Your task to perform on an android device: Add amazon basics triple a to the cart on amazon.com, then select checkout. Image 0: 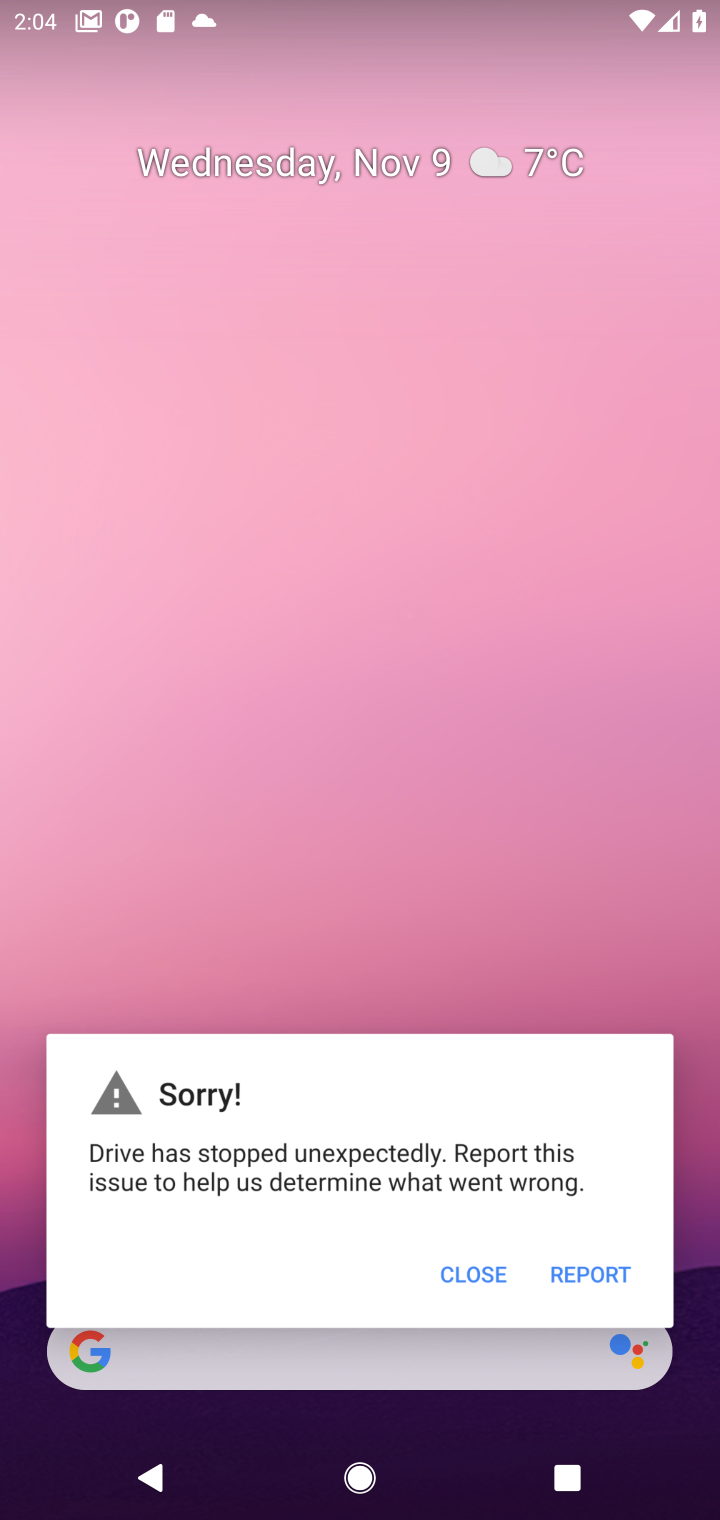
Step 0: press home button
Your task to perform on an android device: Add amazon basics triple a to the cart on amazon.com, then select checkout. Image 1: 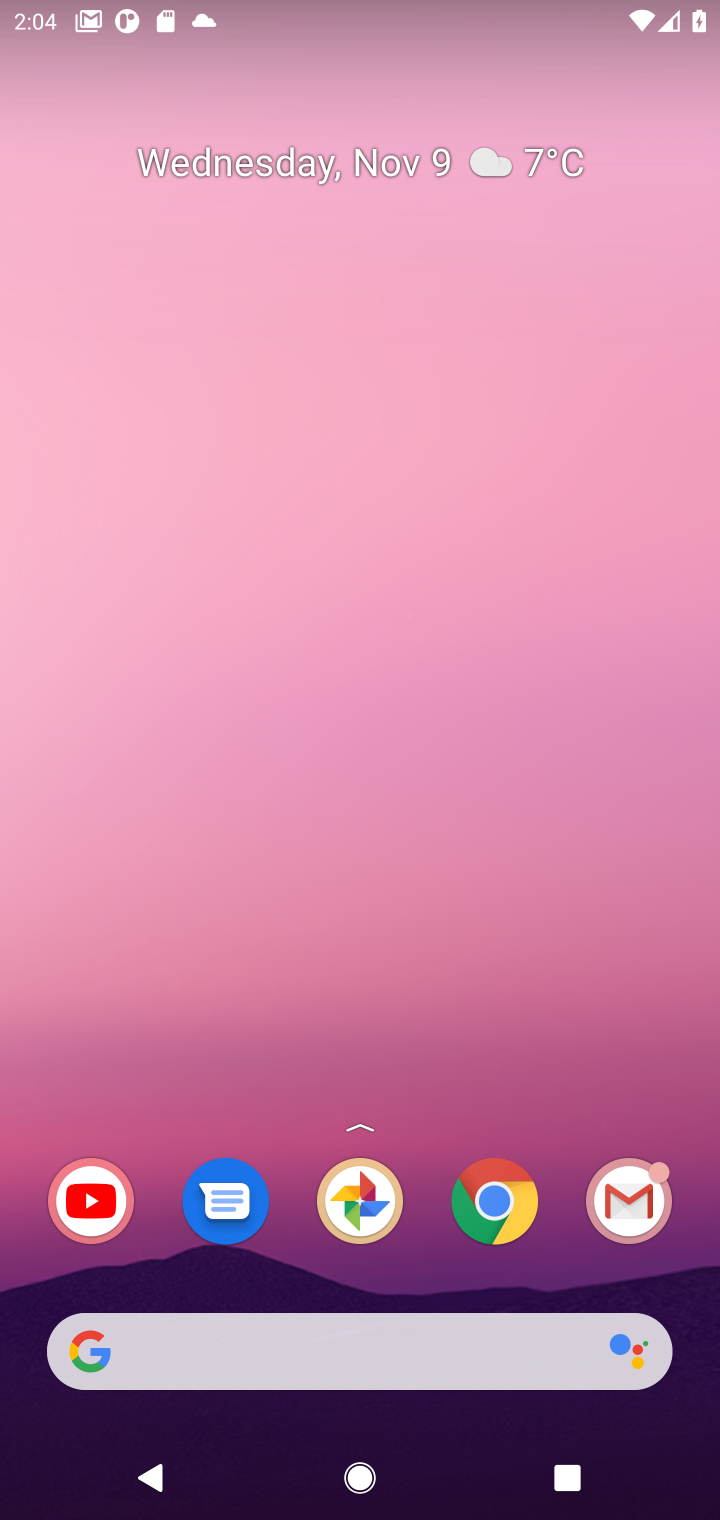
Step 1: click (358, 1388)
Your task to perform on an android device: Add amazon basics triple a to the cart on amazon.com, then select checkout. Image 2: 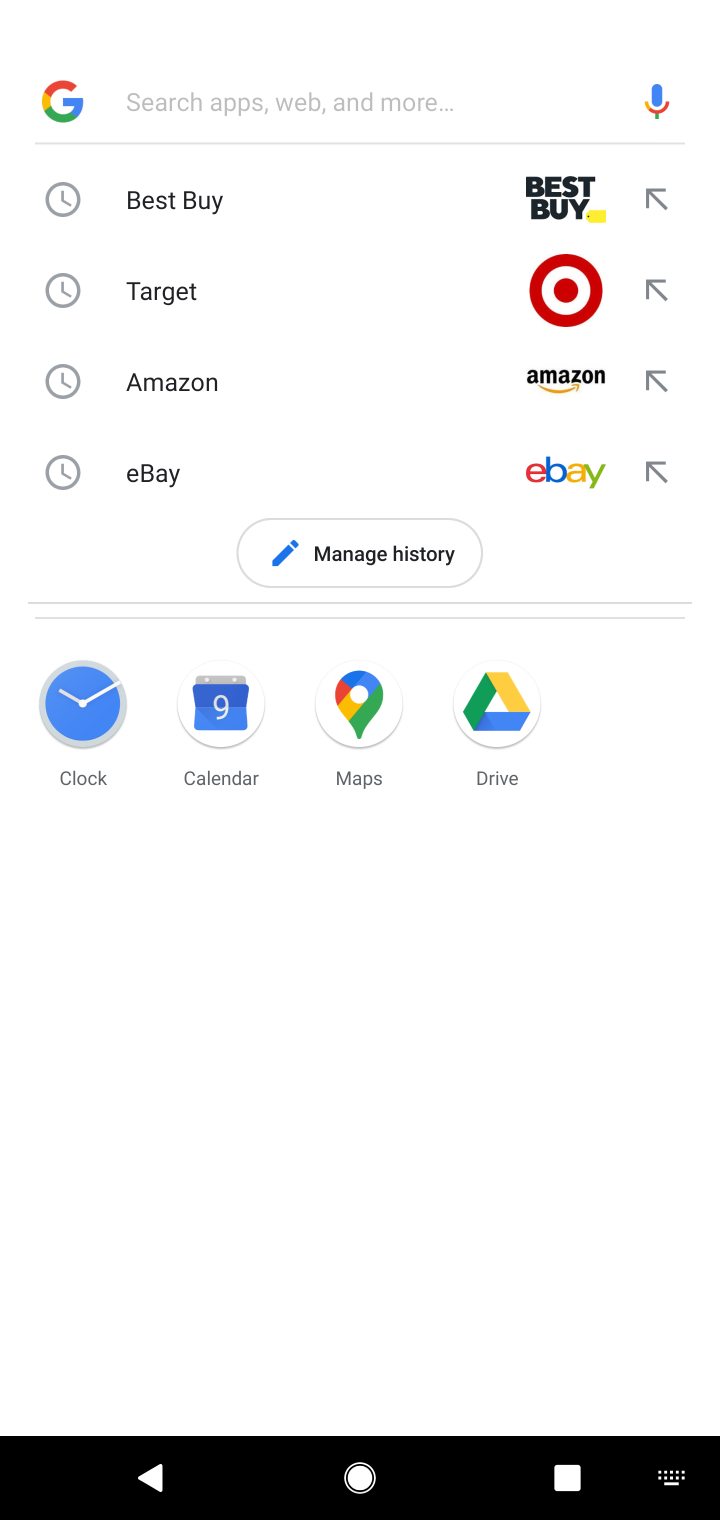
Step 2: click (338, 383)
Your task to perform on an android device: Add amazon basics triple a to the cart on amazon.com, then select checkout. Image 3: 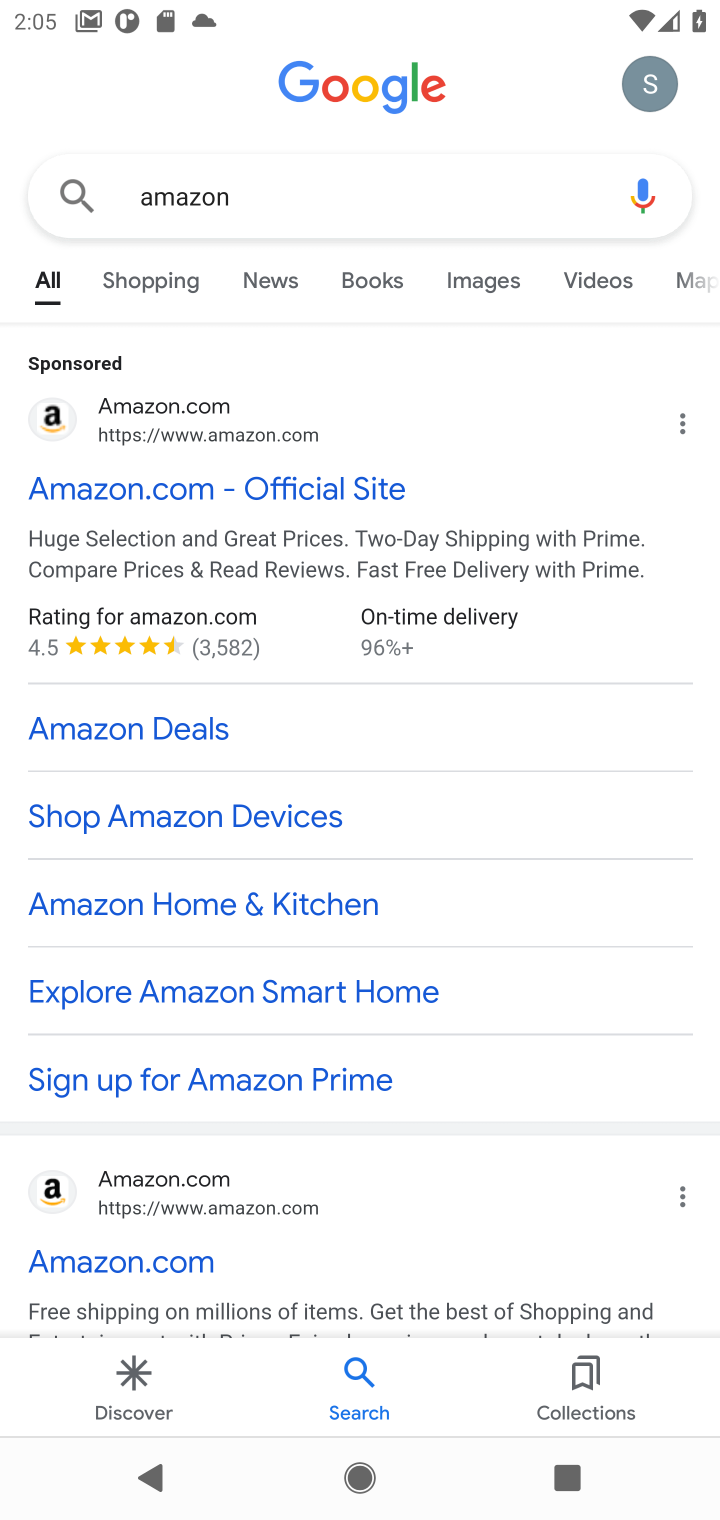
Step 3: click (132, 404)
Your task to perform on an android device: Add amazon basics triple a to the cart on amazon.com, then select checkout. Image 4: 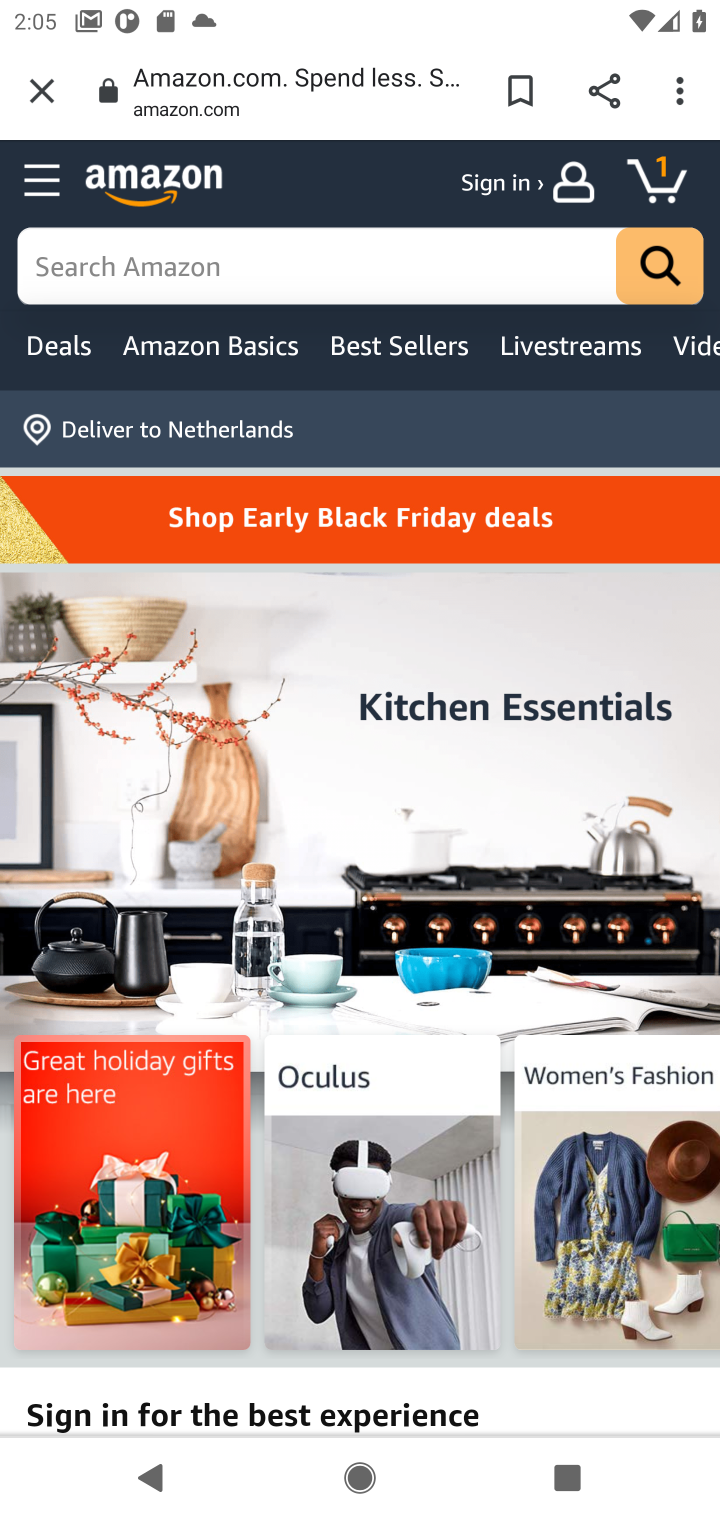
Step 4: click (245, 246)
Your task to perform on an android device: Add amazon basics triple a to the cart on amazon.com, then select checkout. Image 5: 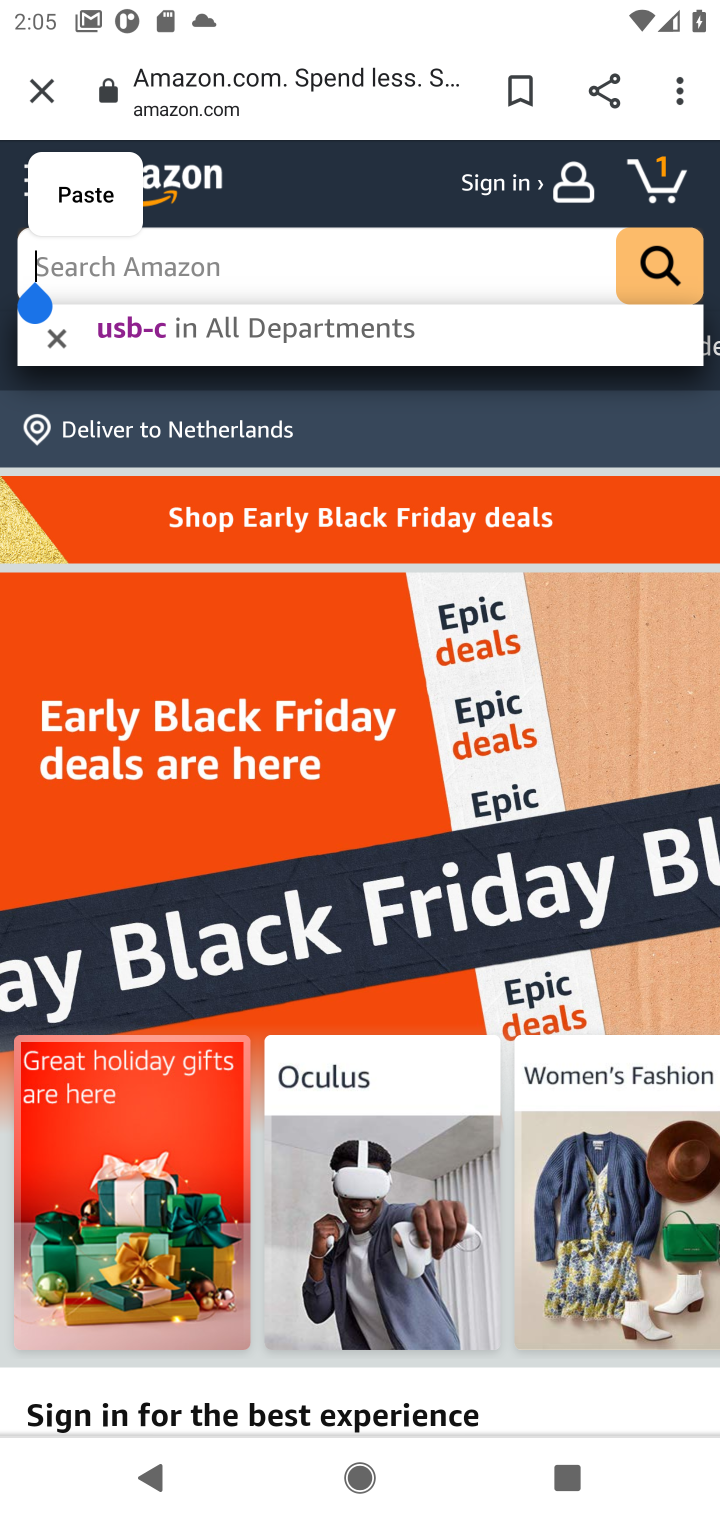
Step 5: type "amazon basics triple a"
Your task to perform on an android device: Add amazon basics triple a to the cart on amazon.com, then select checkout. Image 6: 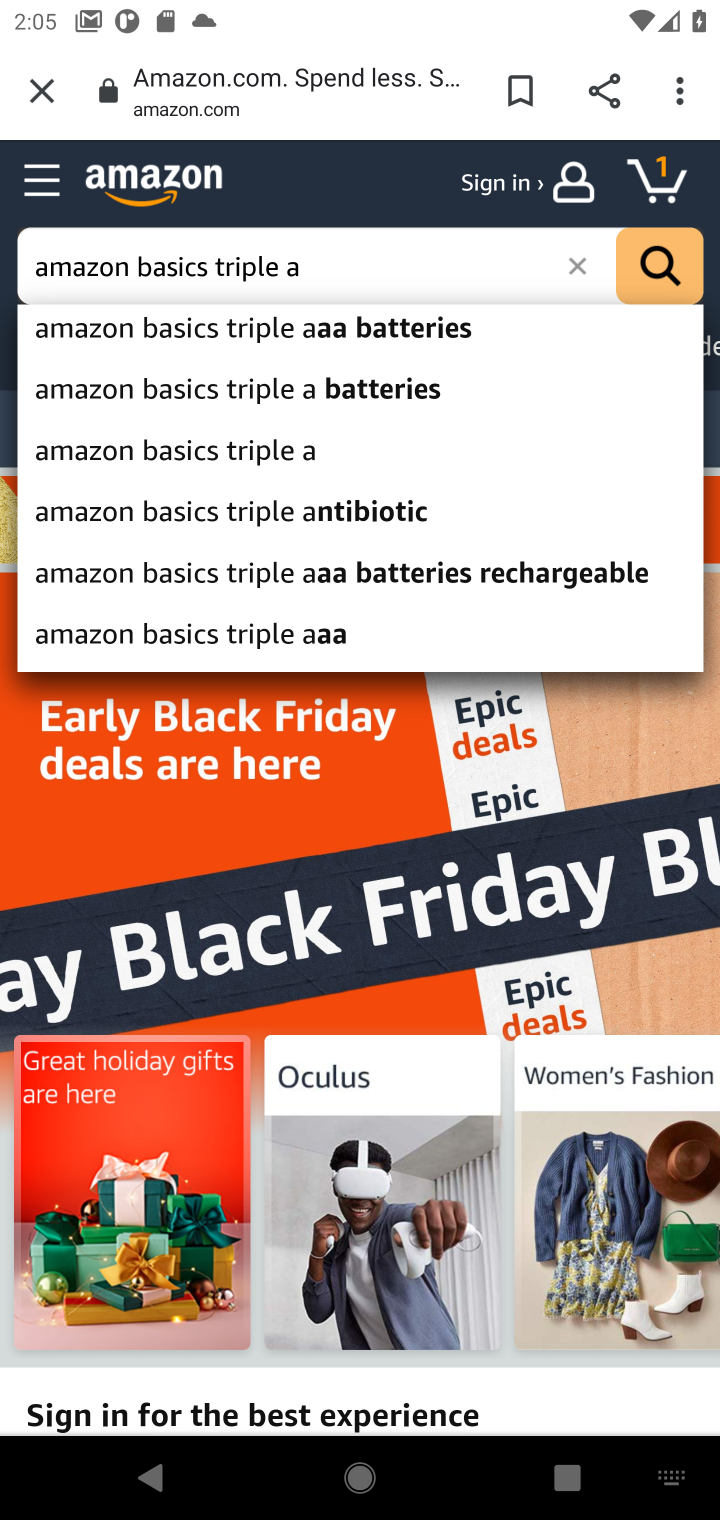
Step 6: click (233, 463)
Your task to perform on an android device: Add amazon basics triple a to the cart on amazon.com, then select checkout. Image 7: 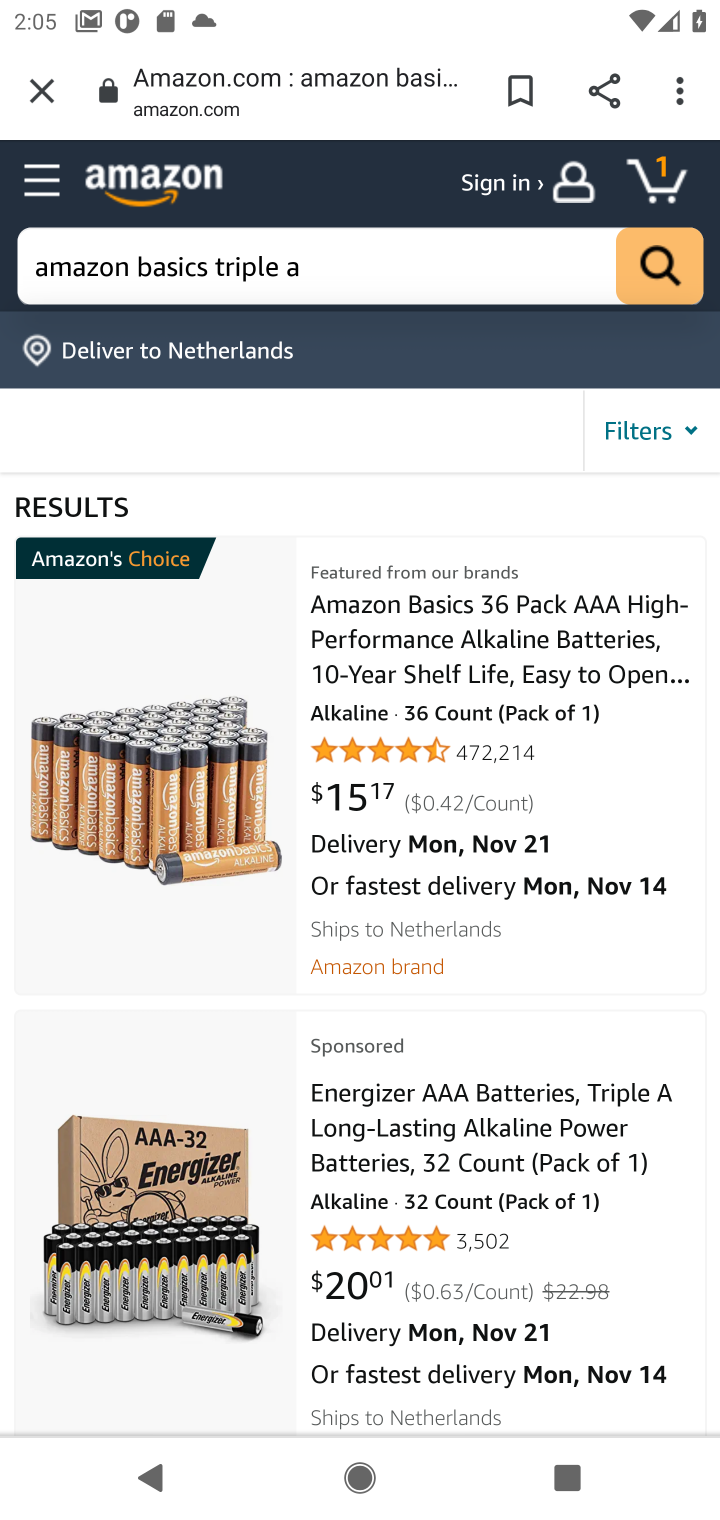
Step 7: click (374, 620)
Your task to perform on an android device: Add amazon basics triple a to the cart on amazon.com, then select checkout. Image 8: 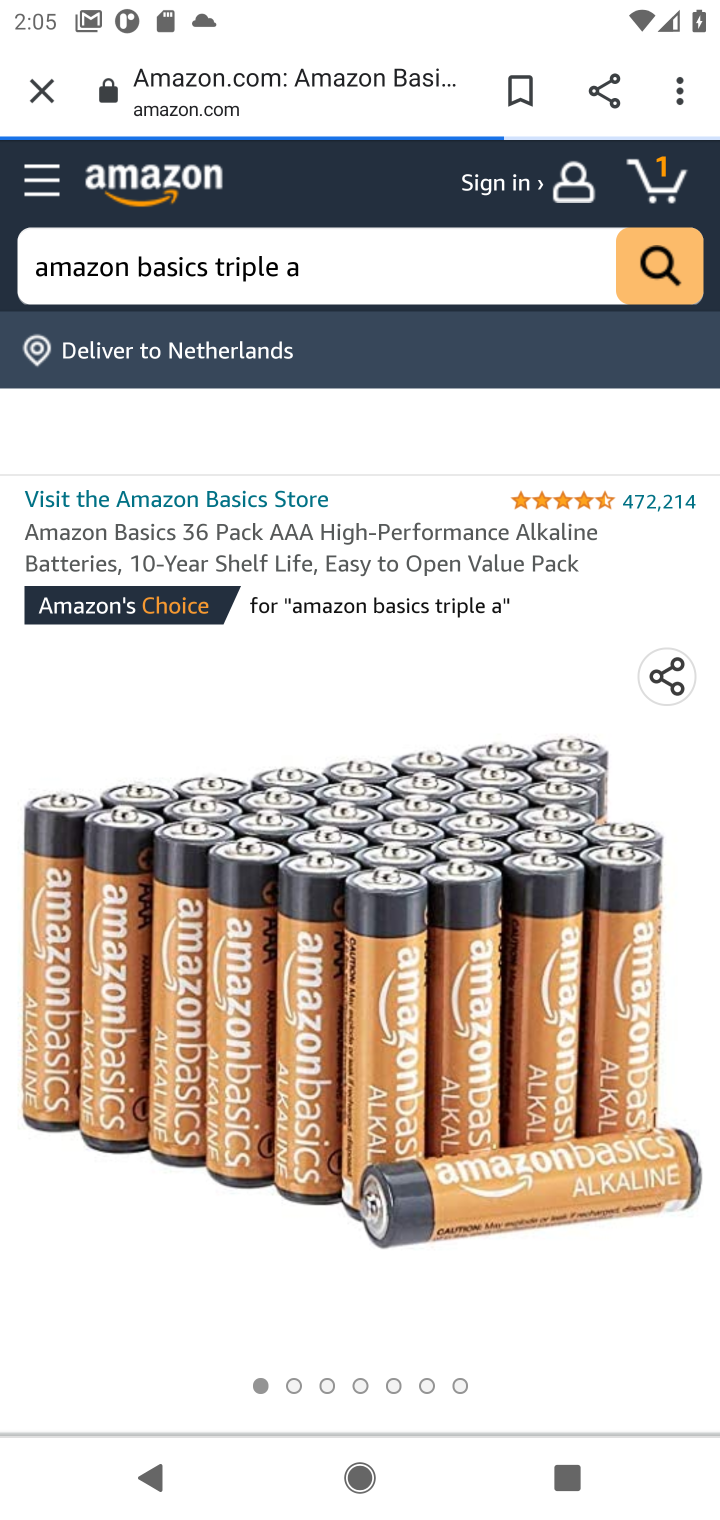
Step 8: drag from (378, 596) to (375, 502)
Your task to perform on an android device: Add amazon basics triple a to the cart on amazon.com, then select checkout. Image 9: 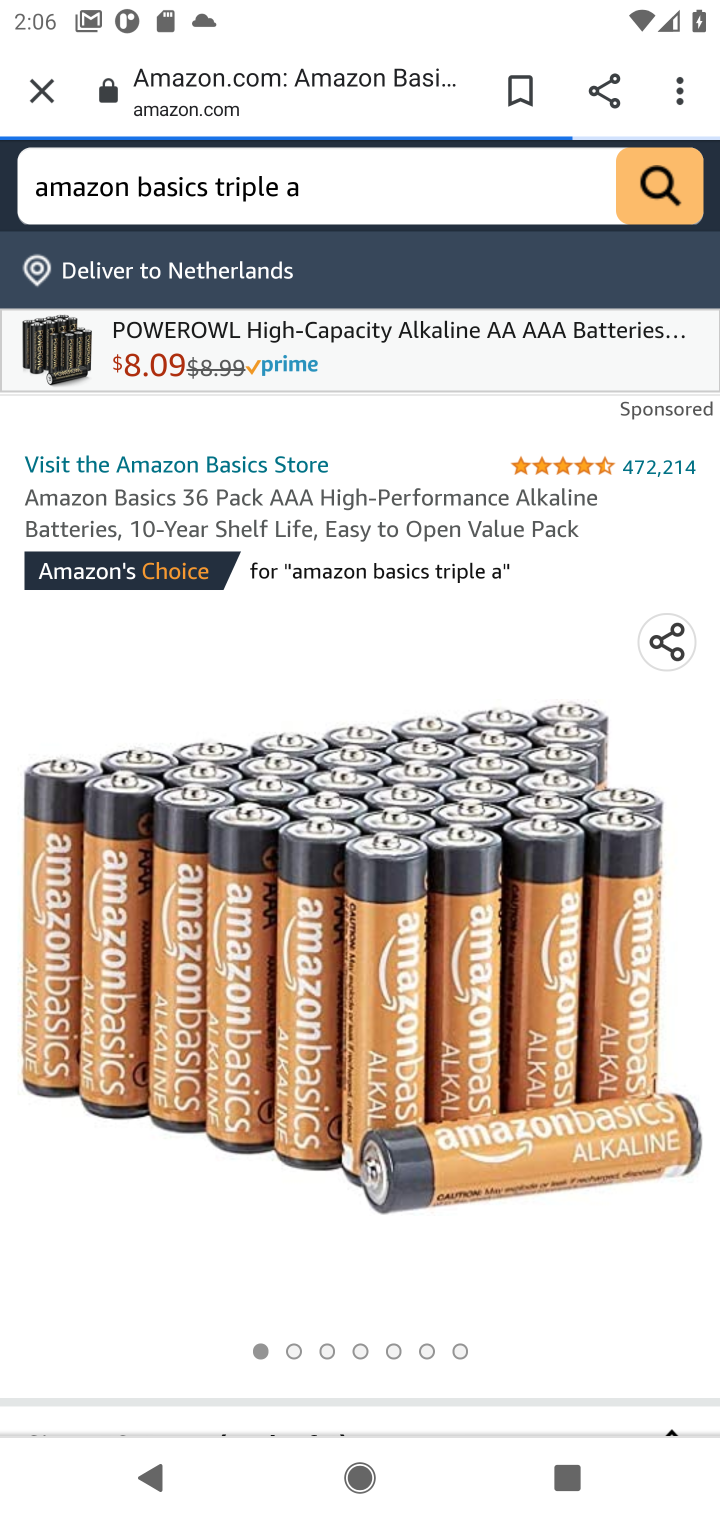
Step 9: drag from (359, 1086) to (343, 882)
Your task to perform on an android device: Add amazon basics triple a to the cart on amazon.com, then select checkout. Image 10: 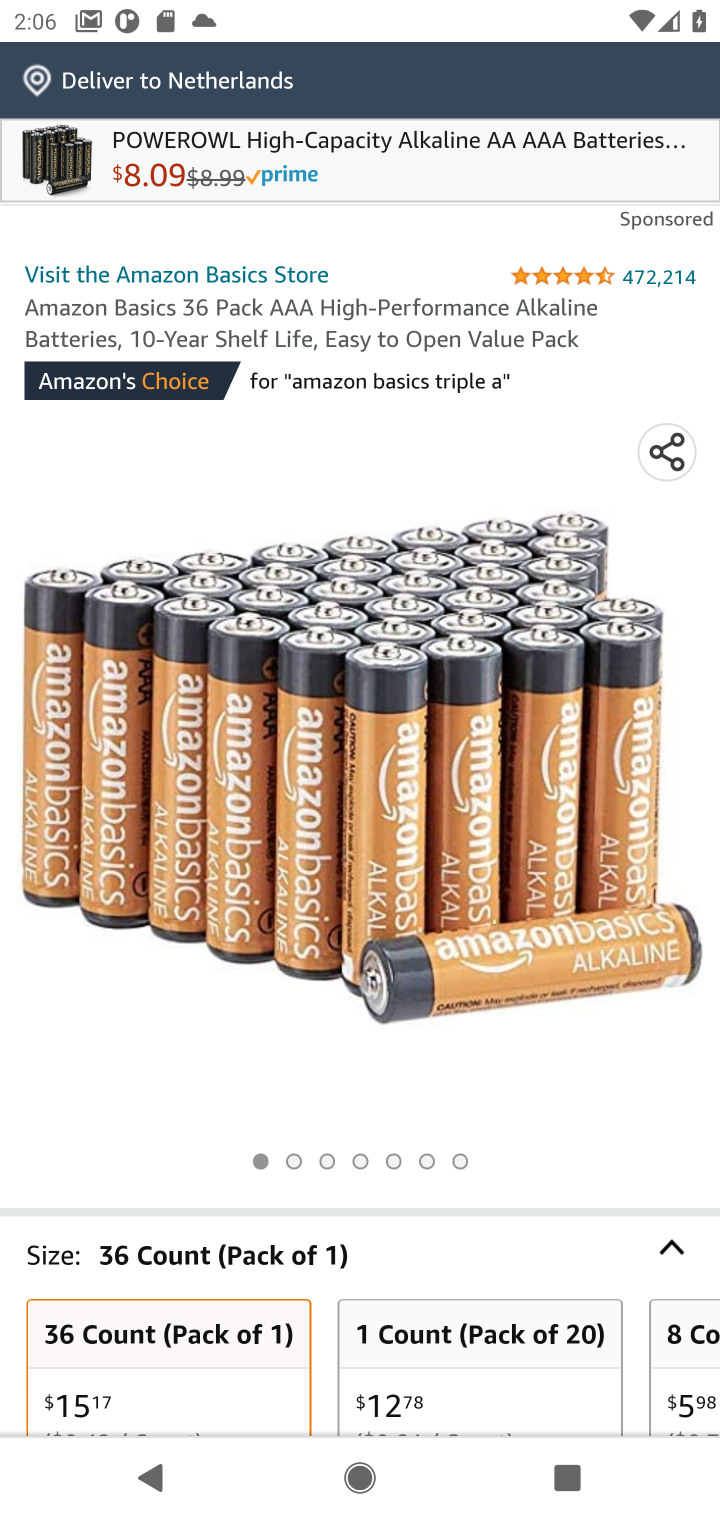
Step 10: click (340, 843)
Your task to perform on an android device: Add amazon basics triple a to the cart on amazon.com, then select checkout. Image 11: 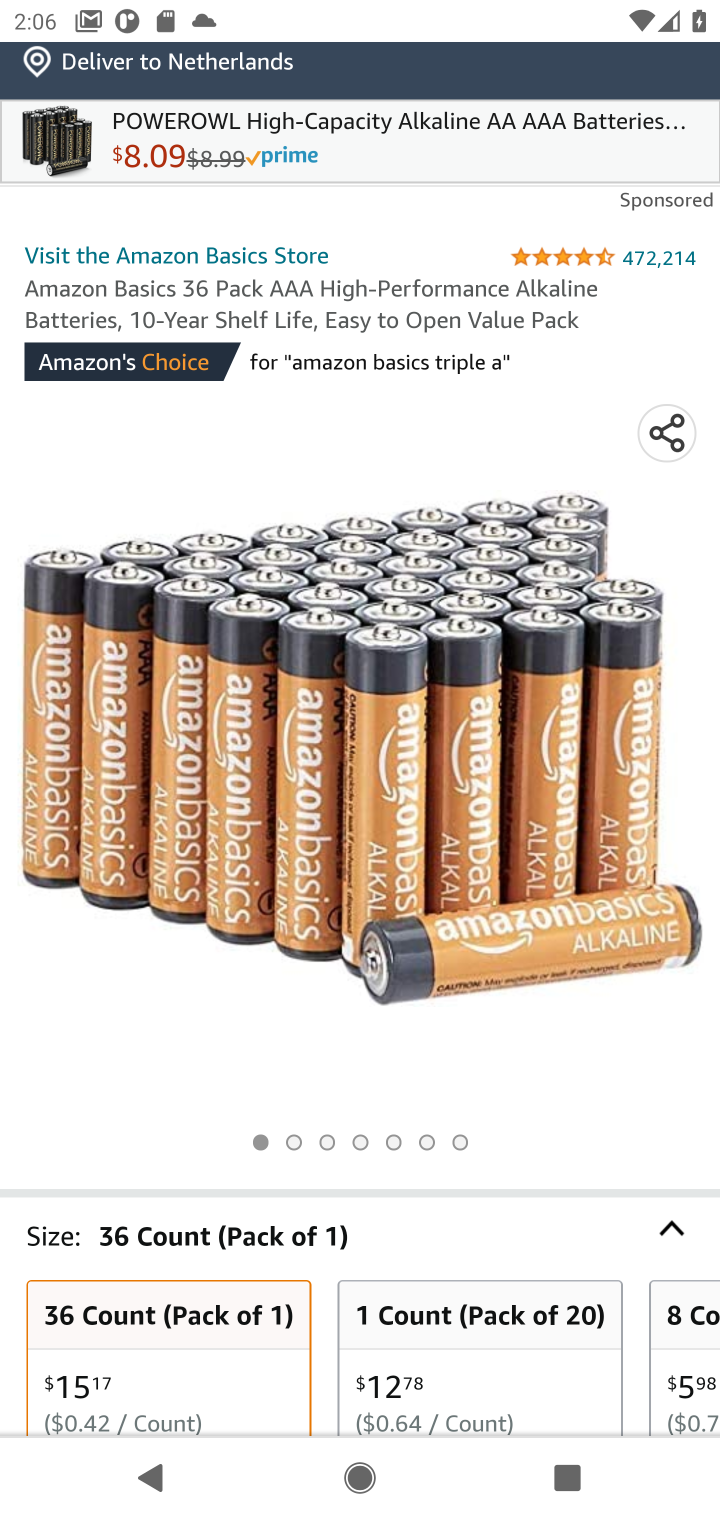
Step 11: drag from (425, 1090) to (379, 717)
Your task to perform on an android device: Add amazon basics triple a to the cart on amazon.com, then select checkout. Image 12: 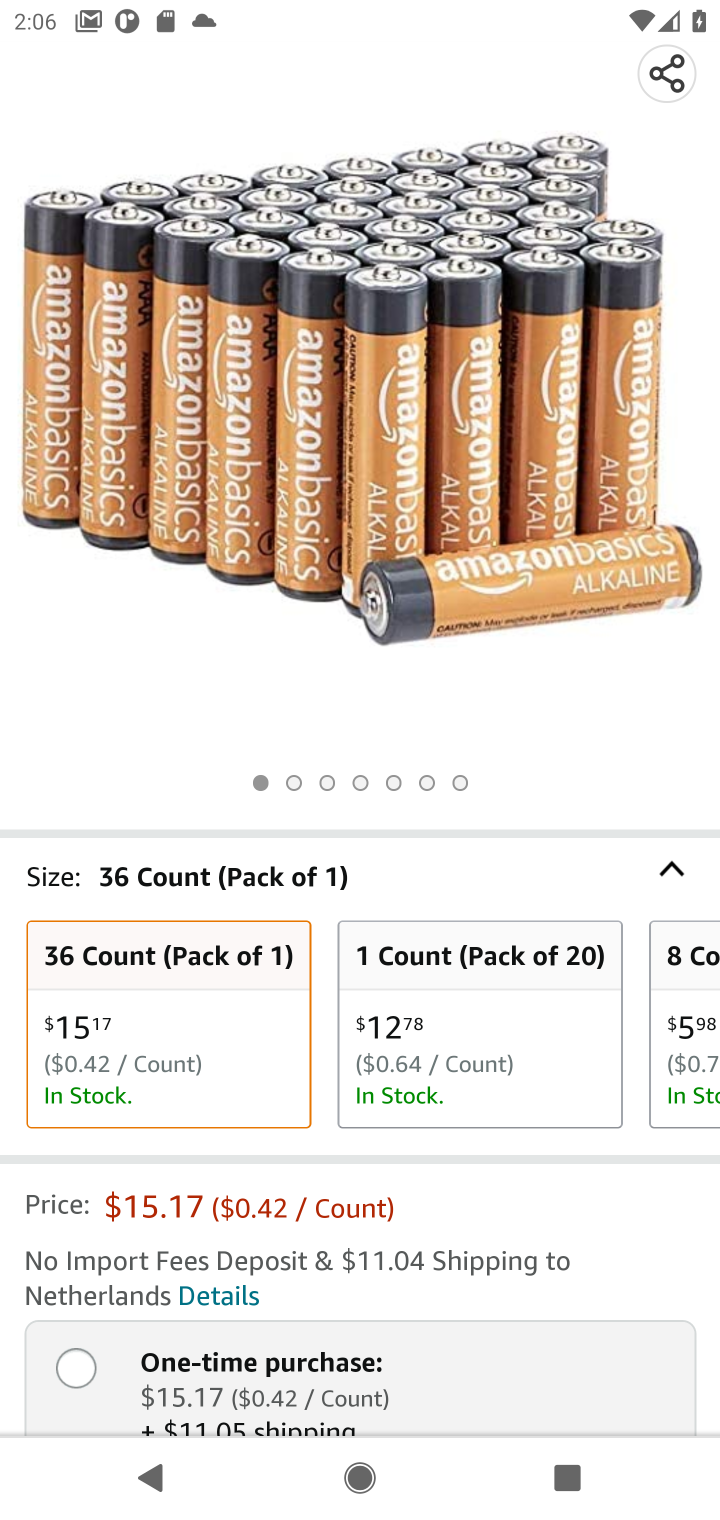
Step 12: drag from (425, 1059) to (389, 812)
Your task to perform on an android device: Add amazon basics triple a to the cart on amazon.com, then select checkout. Image 13: 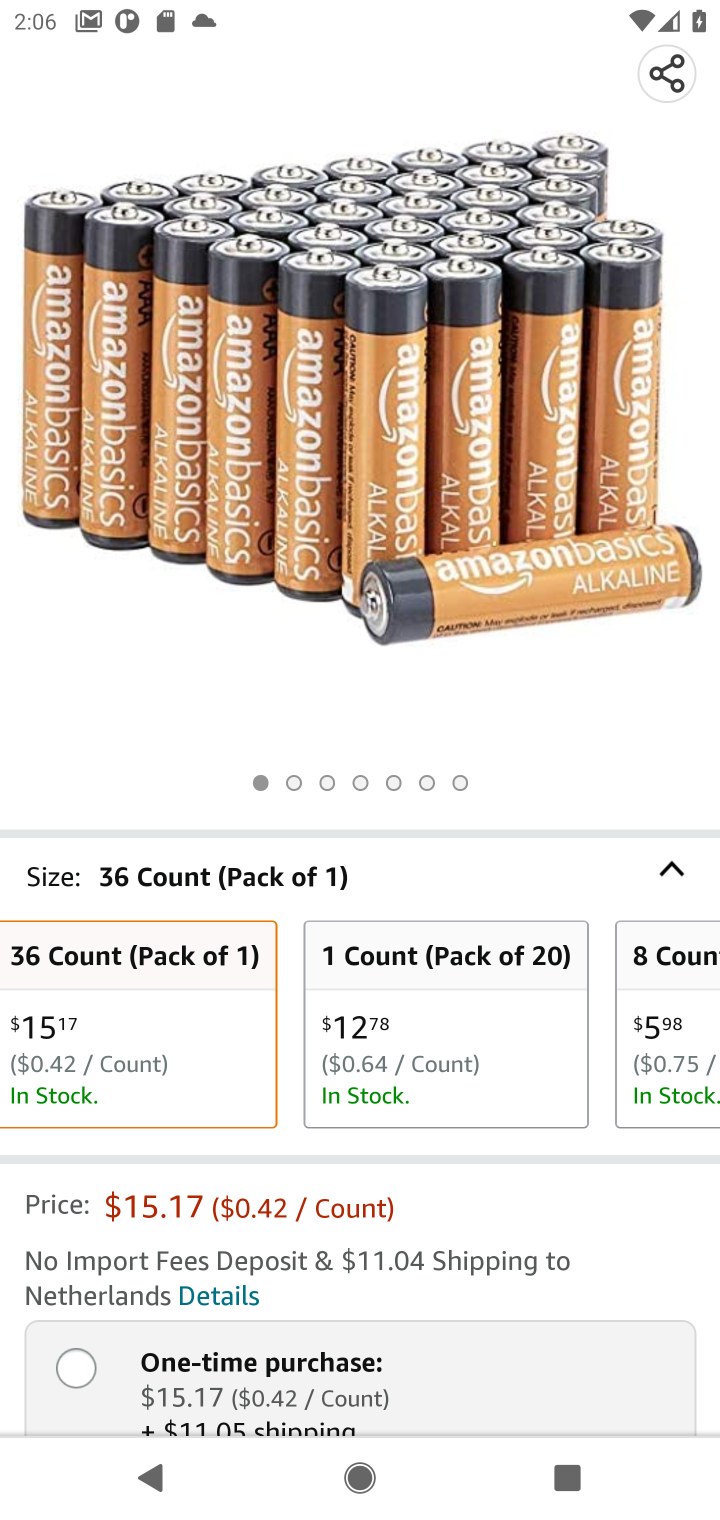
Step 13: drag from (316, 1271) to (244, 773)
Your task to perform on an android device: Add amazon basics triple a to the cart on amazon.com, then select checkout. Image 14: 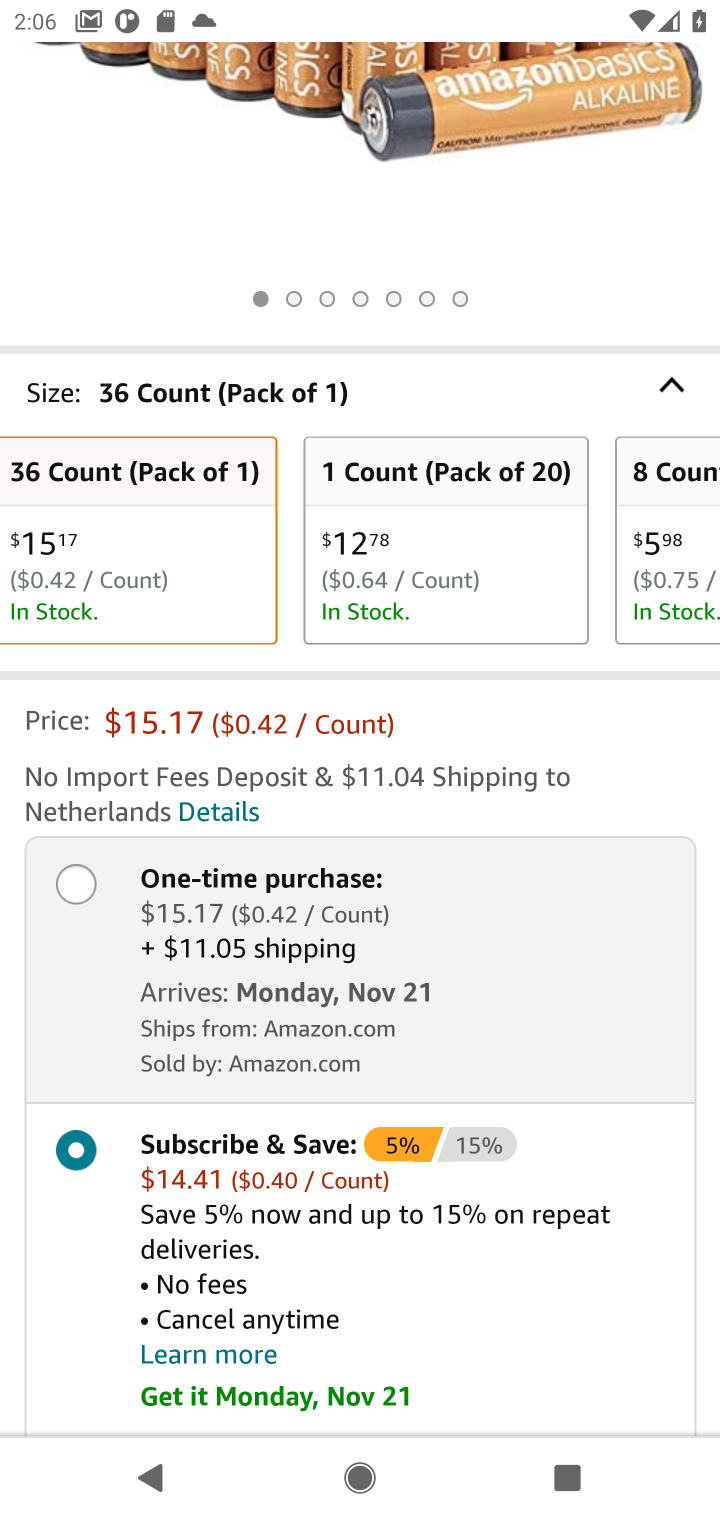
Step 14: drag from (412, 921) to (397, 617)
Your task to perform on an android device: Add amazon basics triple a to the cart on amazon.com, then select checkout. Image 15: 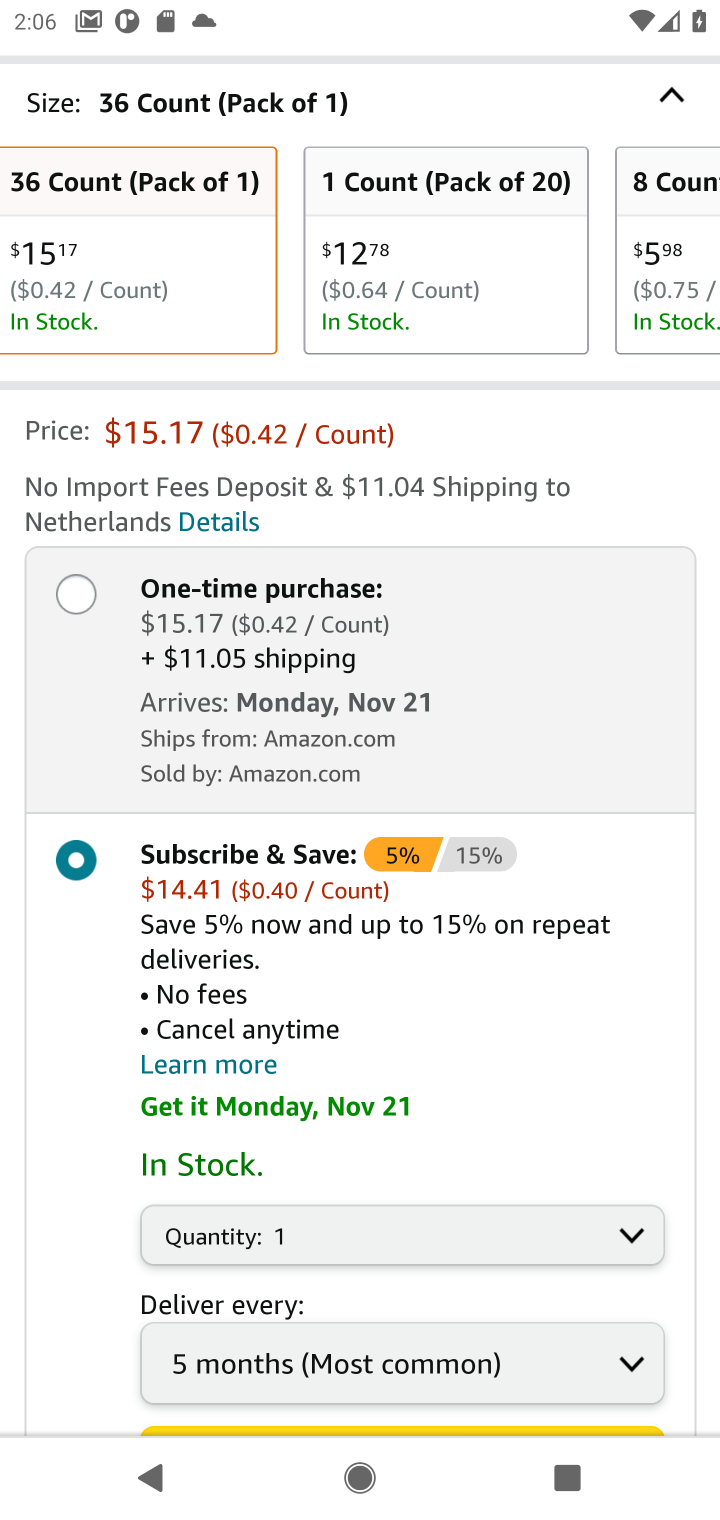
Step 15: drag from (457, 1047) to (444, 714)
Your task to perform on an android device: Add amazon basics triple a to the cart on amazon.com, then select checkout. Image 16: 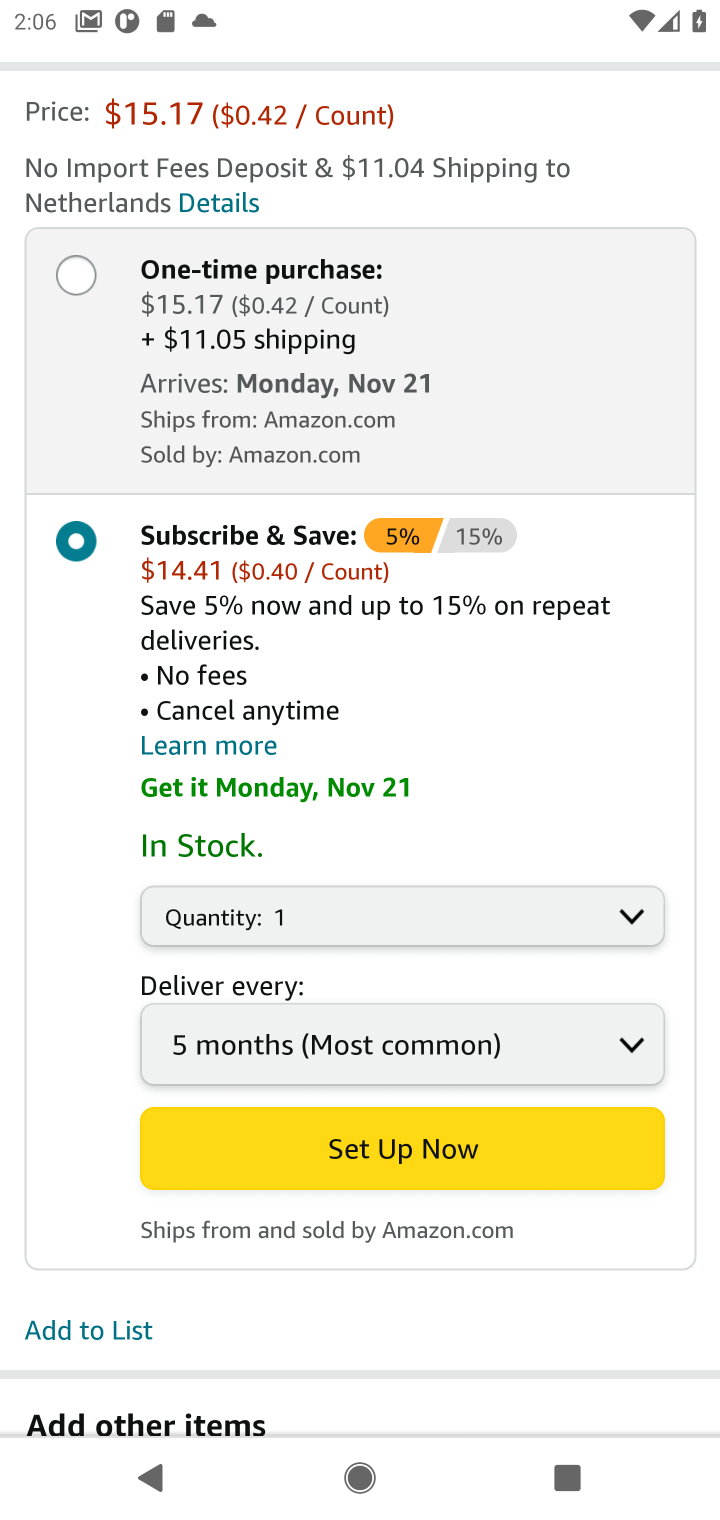
Step 16: drag from (431, 1174) to (431, 778)
Your task to perform on an android device: Add amazon basics triple a to the cart on amazon.com, then select checkout. Image 17: 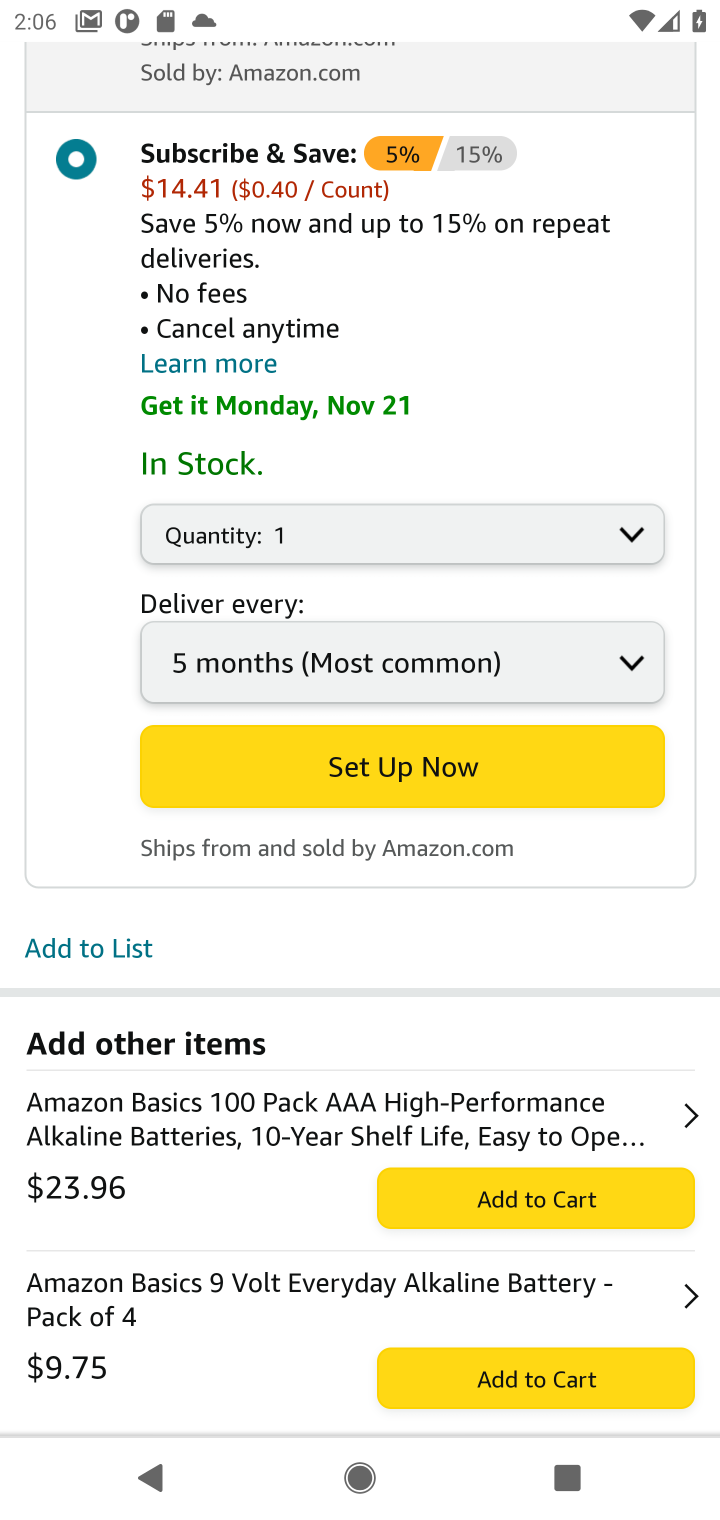
Step 17: click (549, 1206)
Your task to perform on an android device: Add amazon basics triple a to the cart on amazon.com, then select checkout. Image 18: 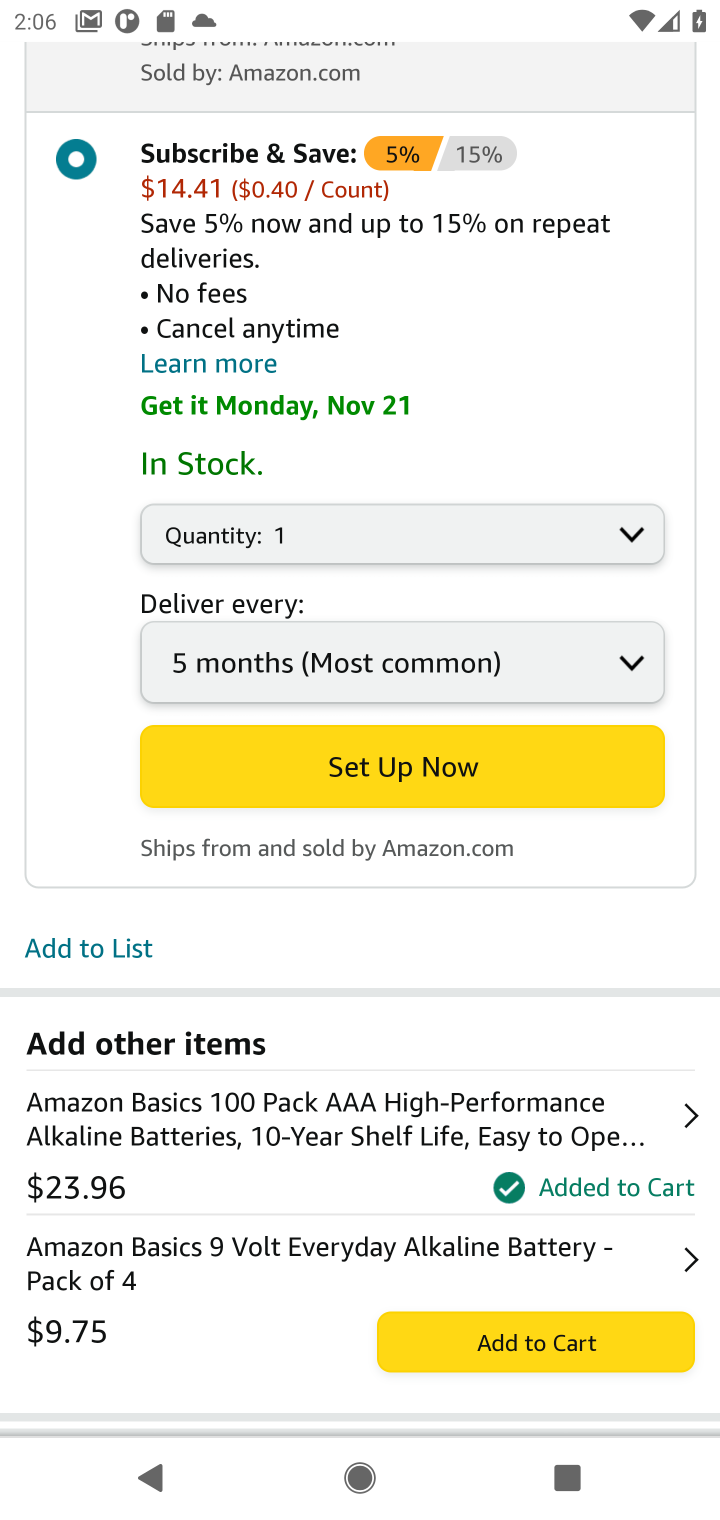
Step 18: task complete